Your task to perform on an android device: turn on javascript in the chrome app Image 0: 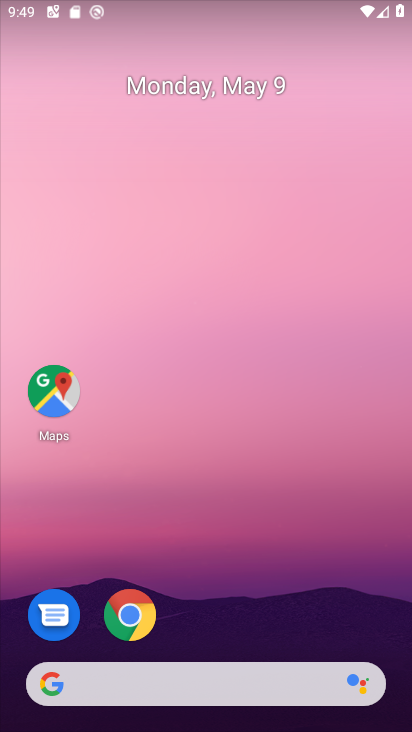
Step 0: drag from (294, 705) to (272, 346)
Your task to perform on an android device: turn on javascript in the chrome app Image 1: 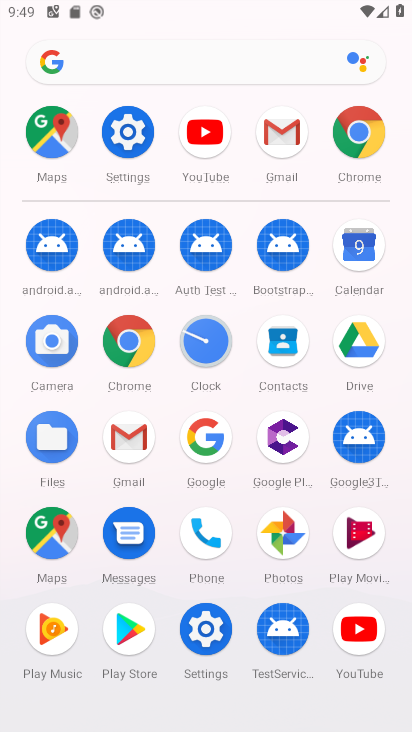
Step 1: click (346, 131)
Your task to perform on an android device: turn on javascript in the chrome app Image 2: 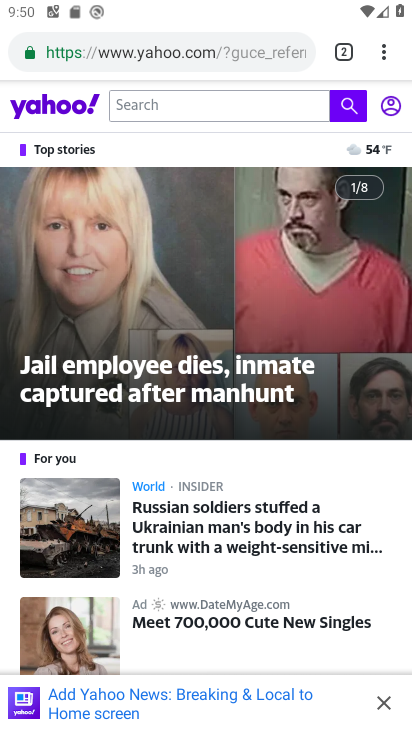
Step 2: click (385, 50)
Your task to perform on an android device: turn on javascript in the chrome app Image 3: 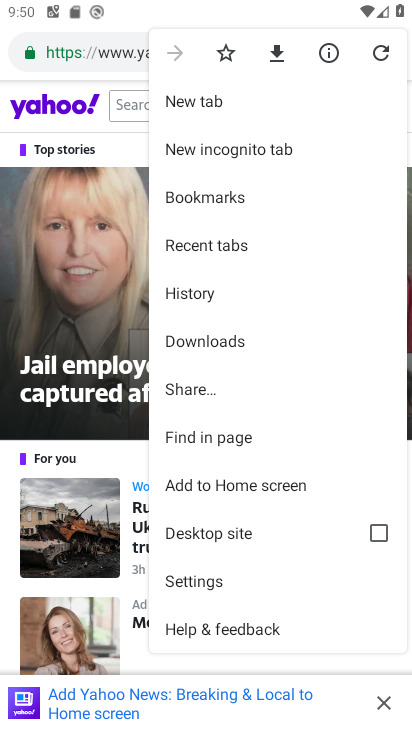
Step 3: click (195, 574)
Your task to perform on an android device: turn on javascript in the chrome app Image 4: 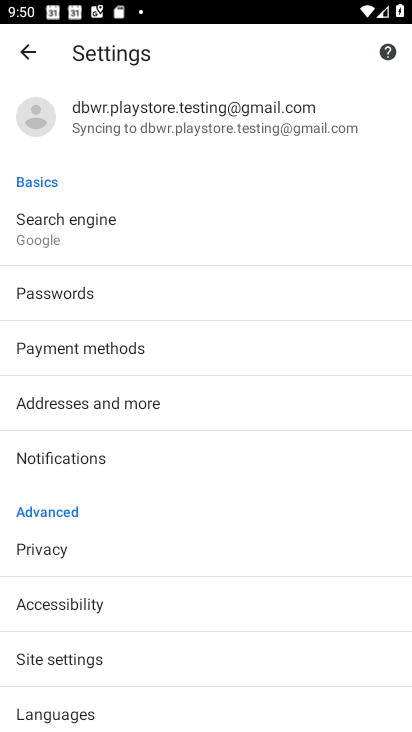
Step 4: click (120, 662)
Your task to perform on an android device: turn on javascript in the chrome app Image 5: 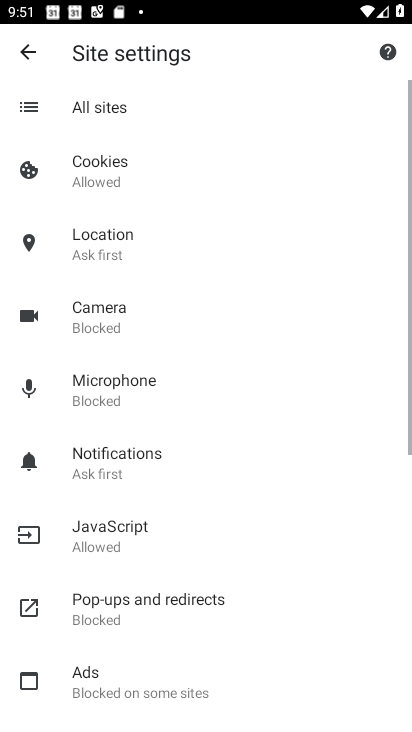
Step 5: click (136, 534)
Your task to perform on an android device: turn on javascript in the chrome app Image 6: 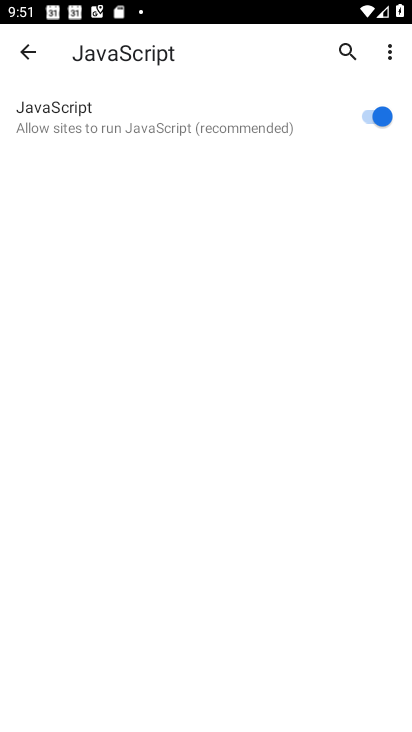
Step 6: task complete